Your task to perform on an android device: clear all cookies in the chrome app Image 0: 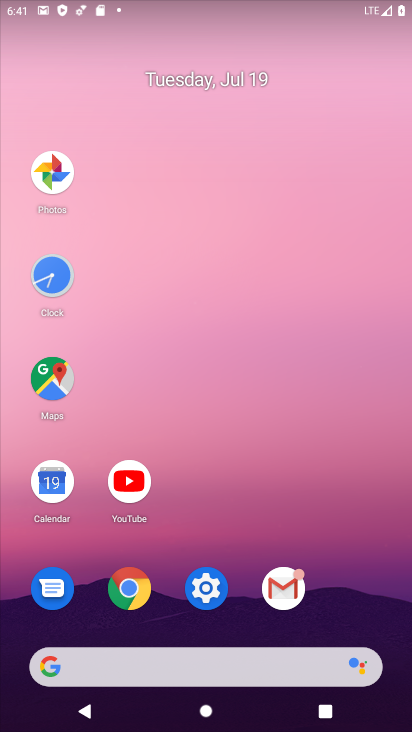
Step 0: click (127, 591)
Your task to perform on an android device: clear all cookies in the chrome app Image 1: 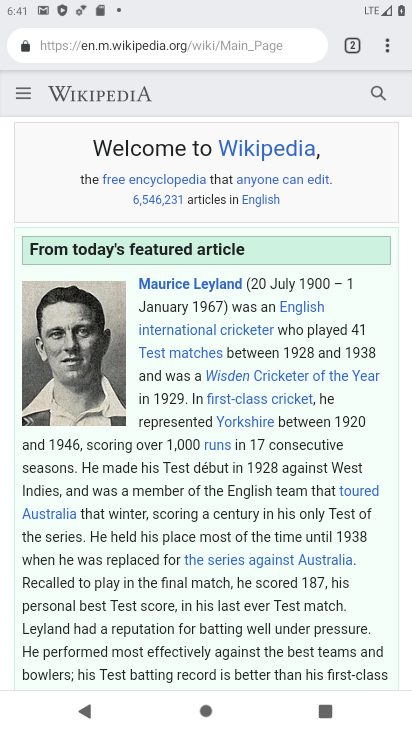
Step 1: click (390, 46)
Your task to perform on an android device: clear all cookies in the chrome app Image 2: 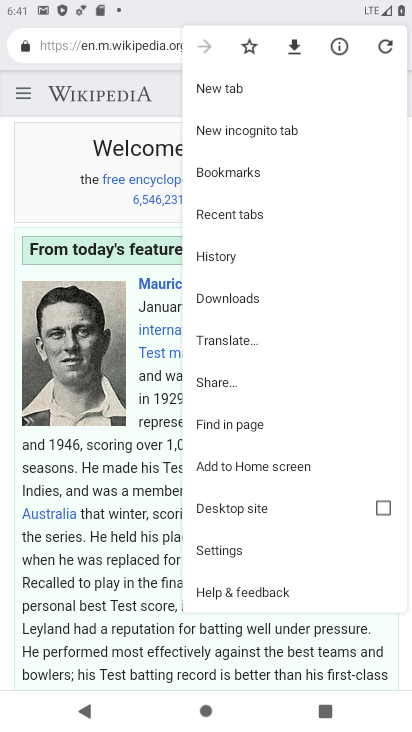
Step 2: click (214, 253)
Your task to perform on an android device: clear all cookies in the chrome app Image 3: 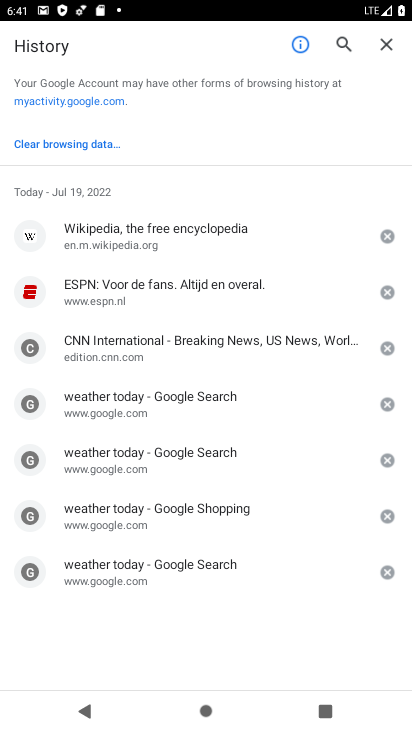
Step 3: click (82, 140)
Your task to perform on an android device: clear all cookies in the chrome app Image 4: 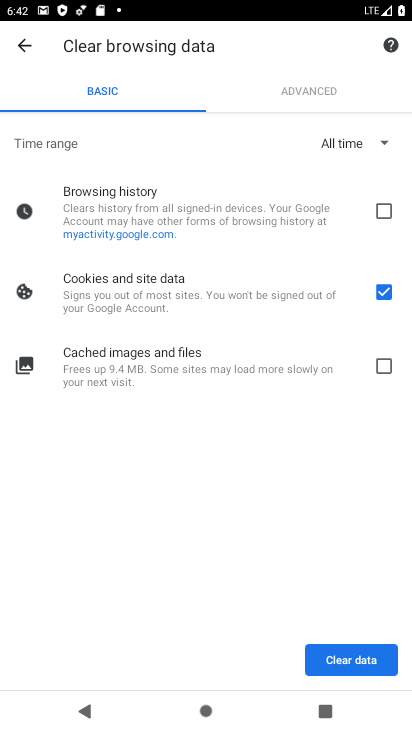
Step 4: click (349, 659)
Your task to perform on an android device: clear all cookies in the chrome app Image 5: 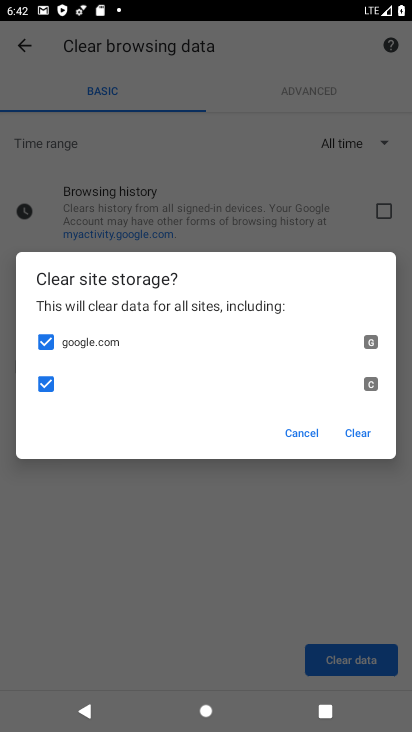
Step 5: click (353, 427)
Your task to perform on an android device: clear all cookies in the chrome app Image 6: 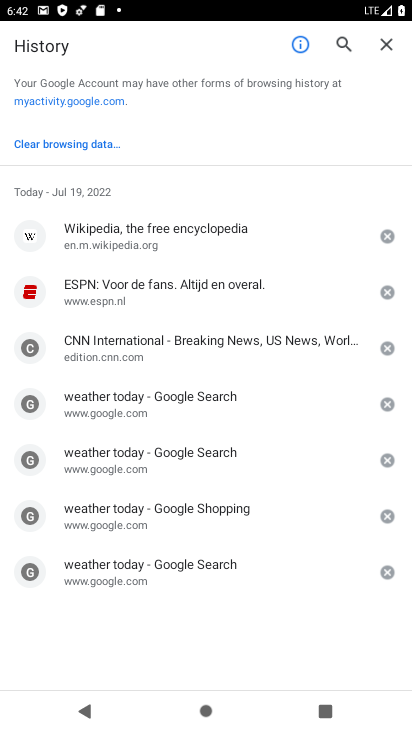
Step 6: task complete